Your task to perform on an android device: Toggle the flashlight Image 0: 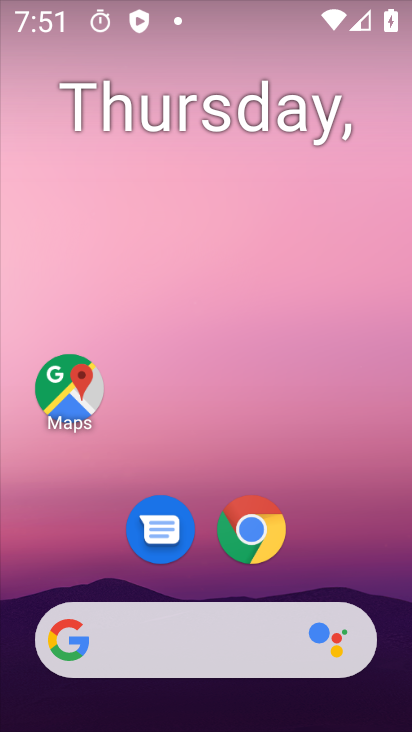
Step 0: drag from (389, 717) to (376, 133)
Your task to perform on an android device: Toggle the flashlight Image 1: 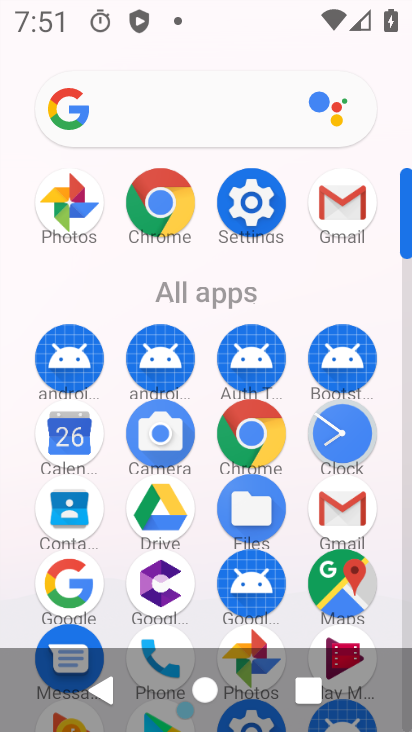
Step 1: click (239, 224)
Your task to perform on an android device: Toggle the flashlight Image 2: 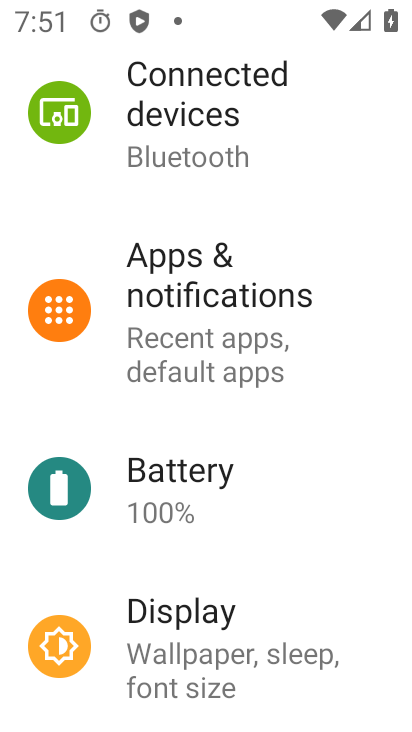
Step 2: click (159, 648)
Your task to perform on an android device: Toggle the flashlight Image 3: 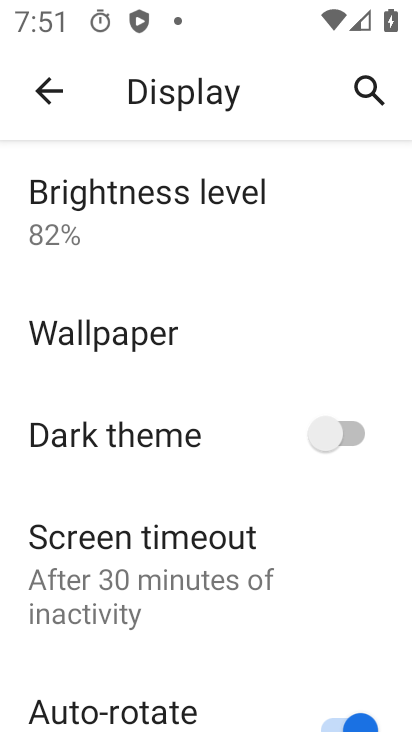
Step 3: task complete